Your task to perform on an android device: open app "Roku - Official Remote Control" (install if not already installed) Image 0: 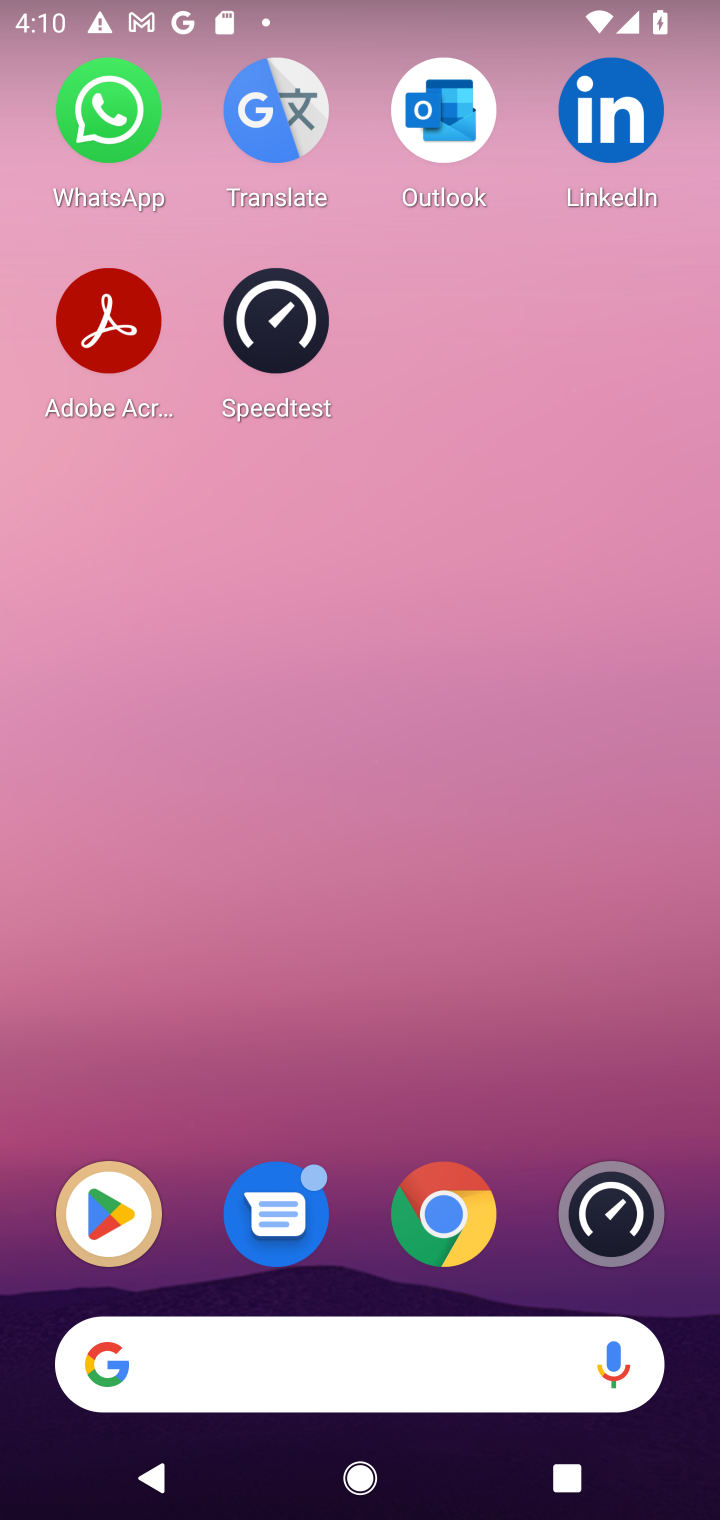
Step 0: press home button
Your task to perform on an android device: open app "Roku - Official Remote Control" (install if not already installed) Image 1: 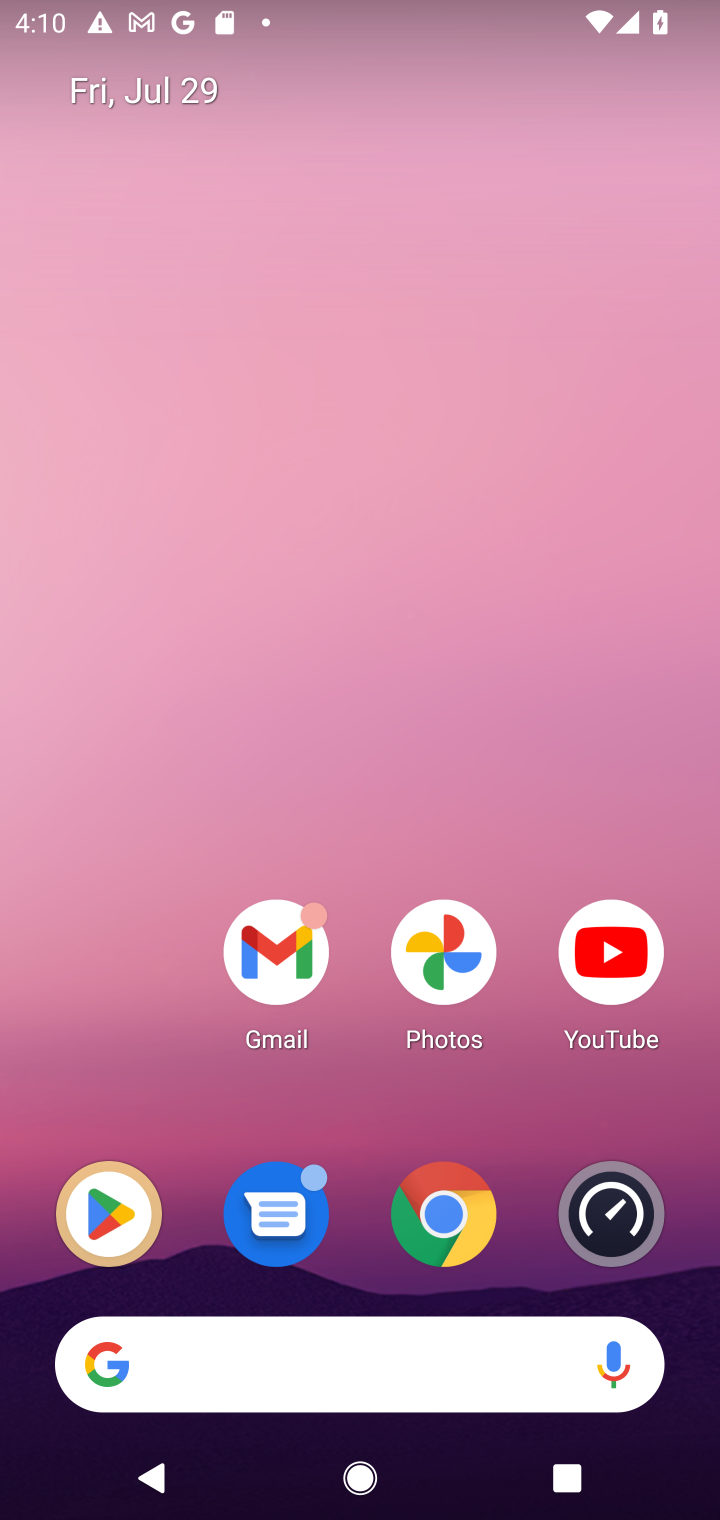
Step 1: click (114, 1234)
Your task to perform on an android device: open app "Roku - Official Remote Control" (install if not already installed) Image 2: 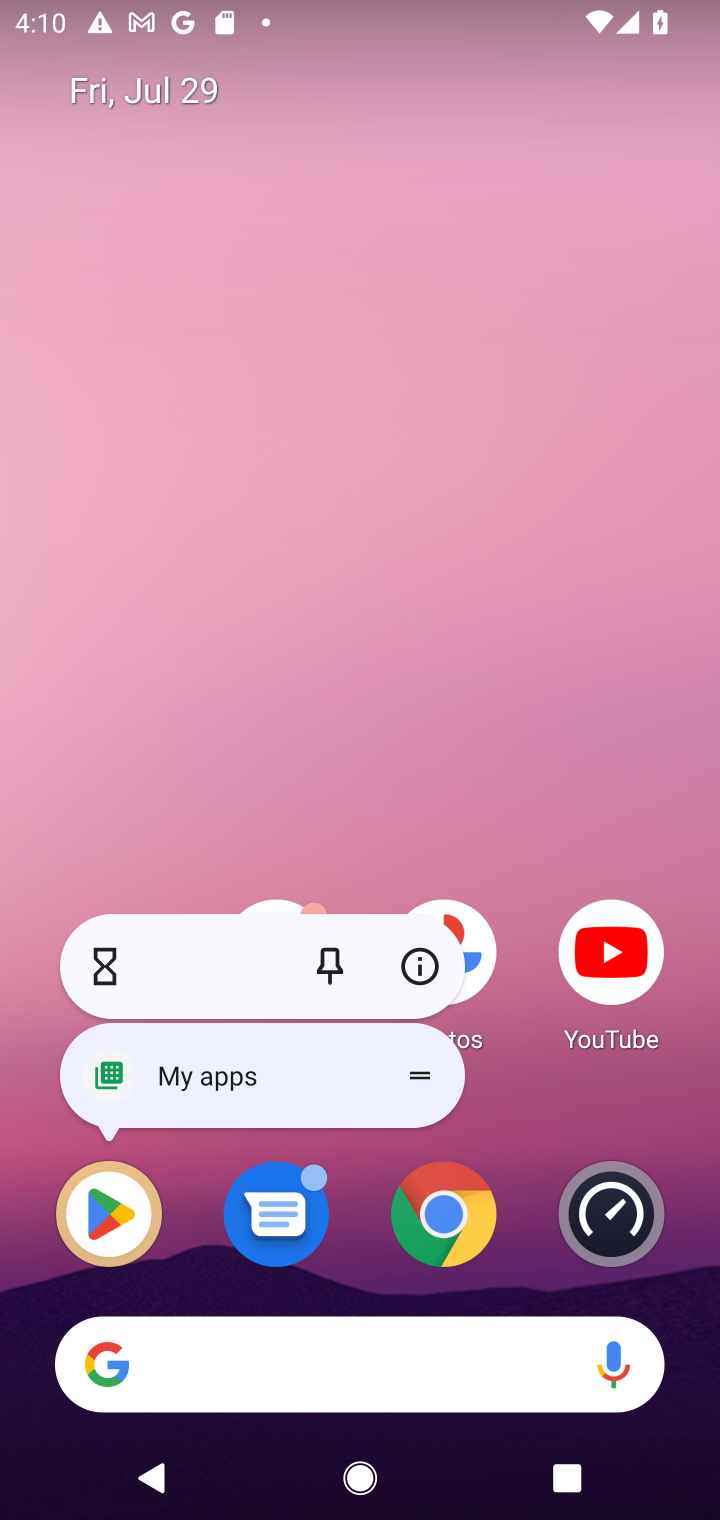
Step 2: click (101, 1236)
Your task to perform on an android device: open app "Roku - Official Remote Control" (install if not already installed) Image 3: 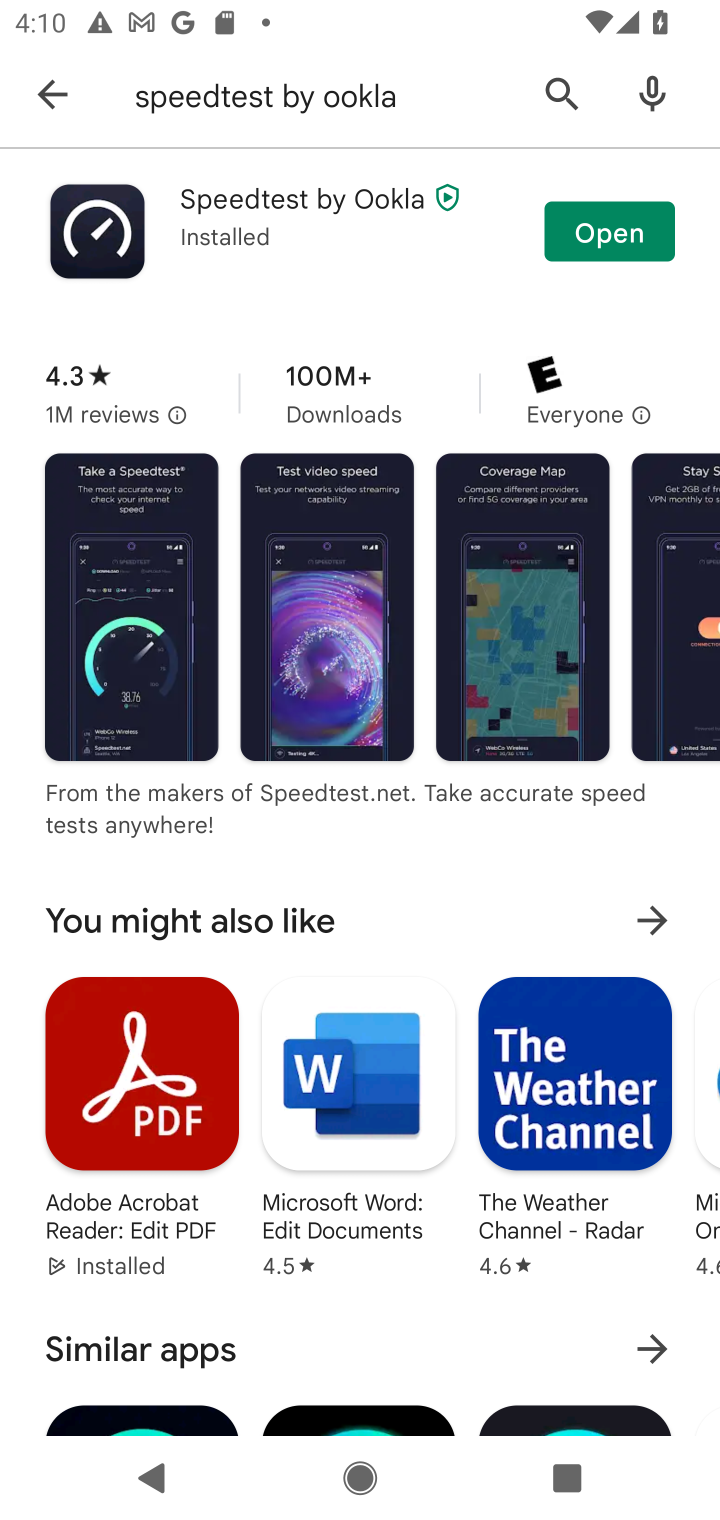
Step 3: click (413, 93)
Your task to perform on an android device: open app "Roku - Official Remote Control" (install if not already installed) Image 4: 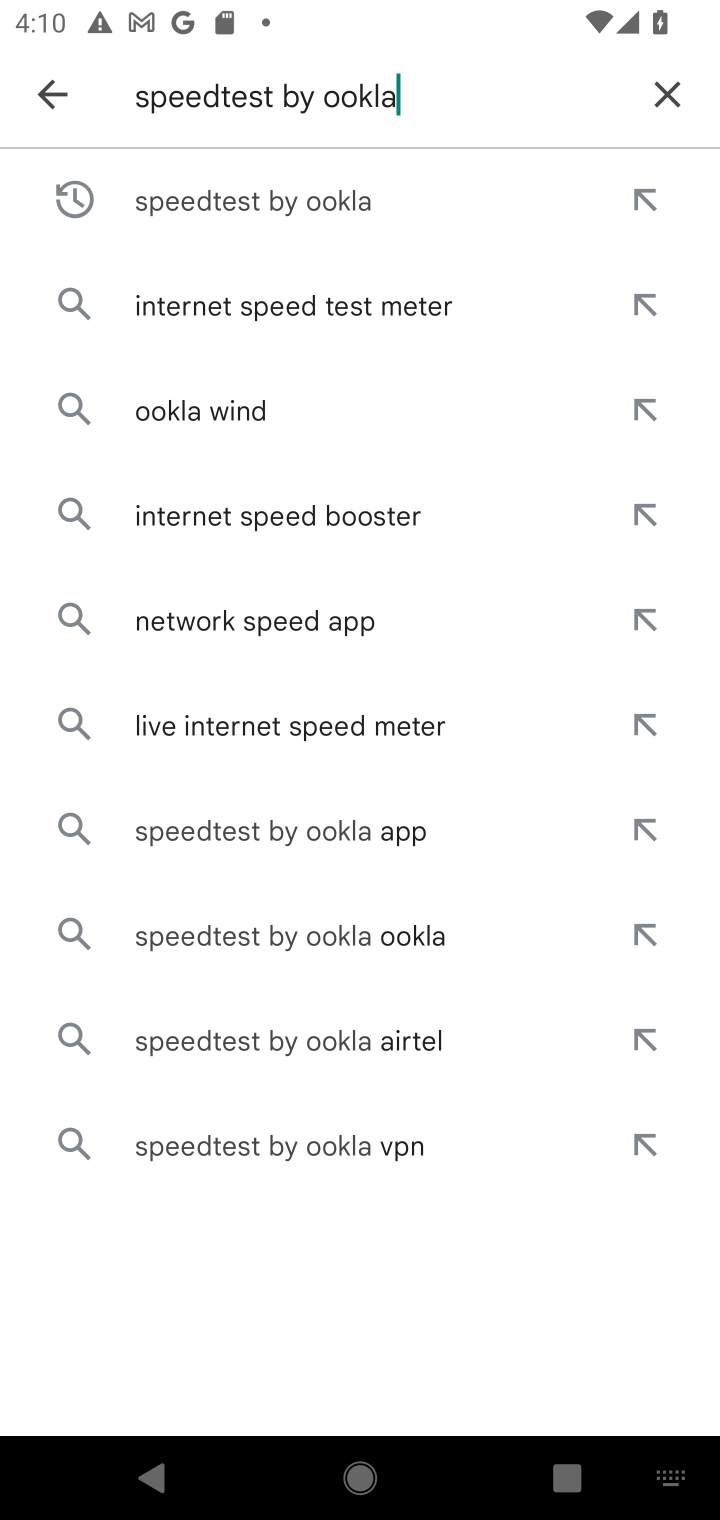
Step 4: click (677, 80)
Your task to perform on an android device: open app "Roku - Official Remote Control" (install if not already installed) Image 5: 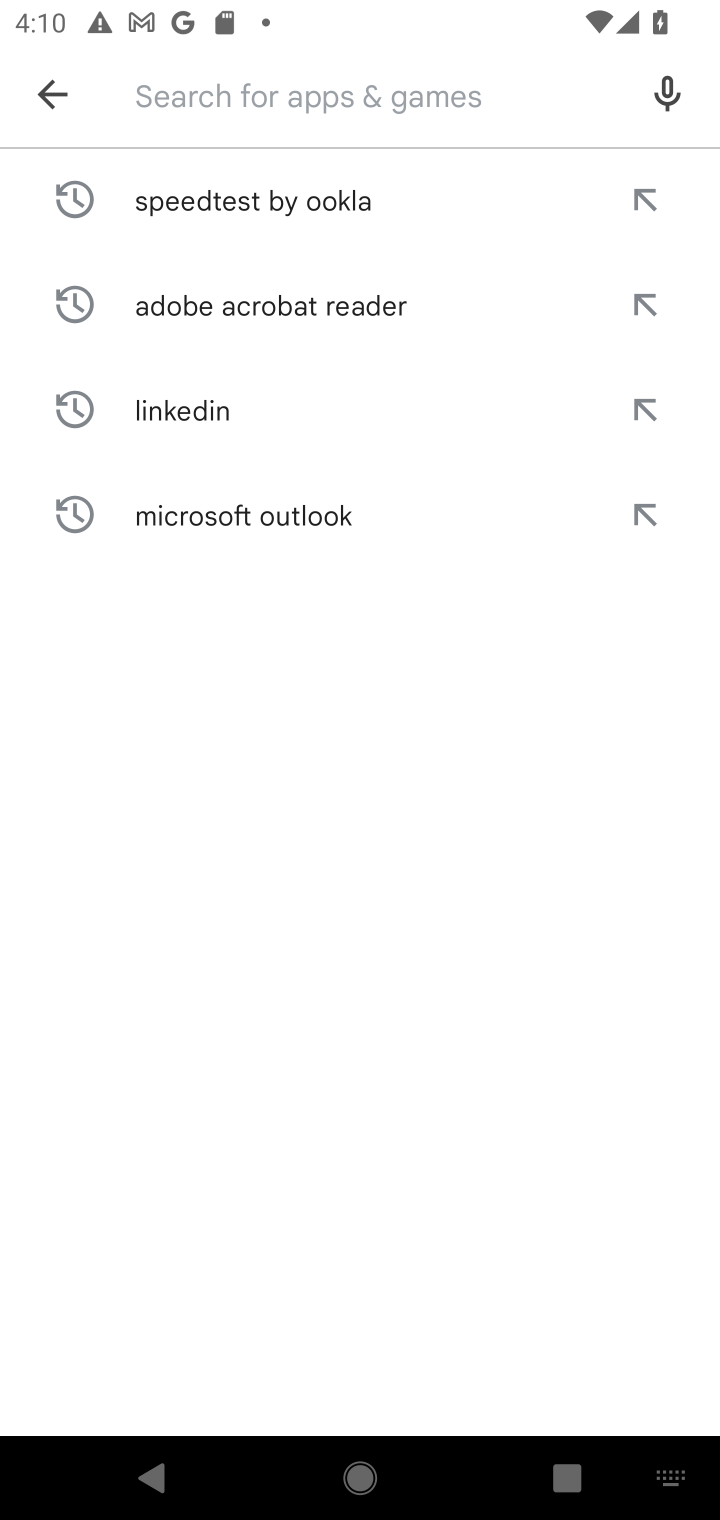
Step 5: type "Roku"
Your task to perform on an android device: open app "Roku - Official Remote Control" (install if not already installed) Image 6: 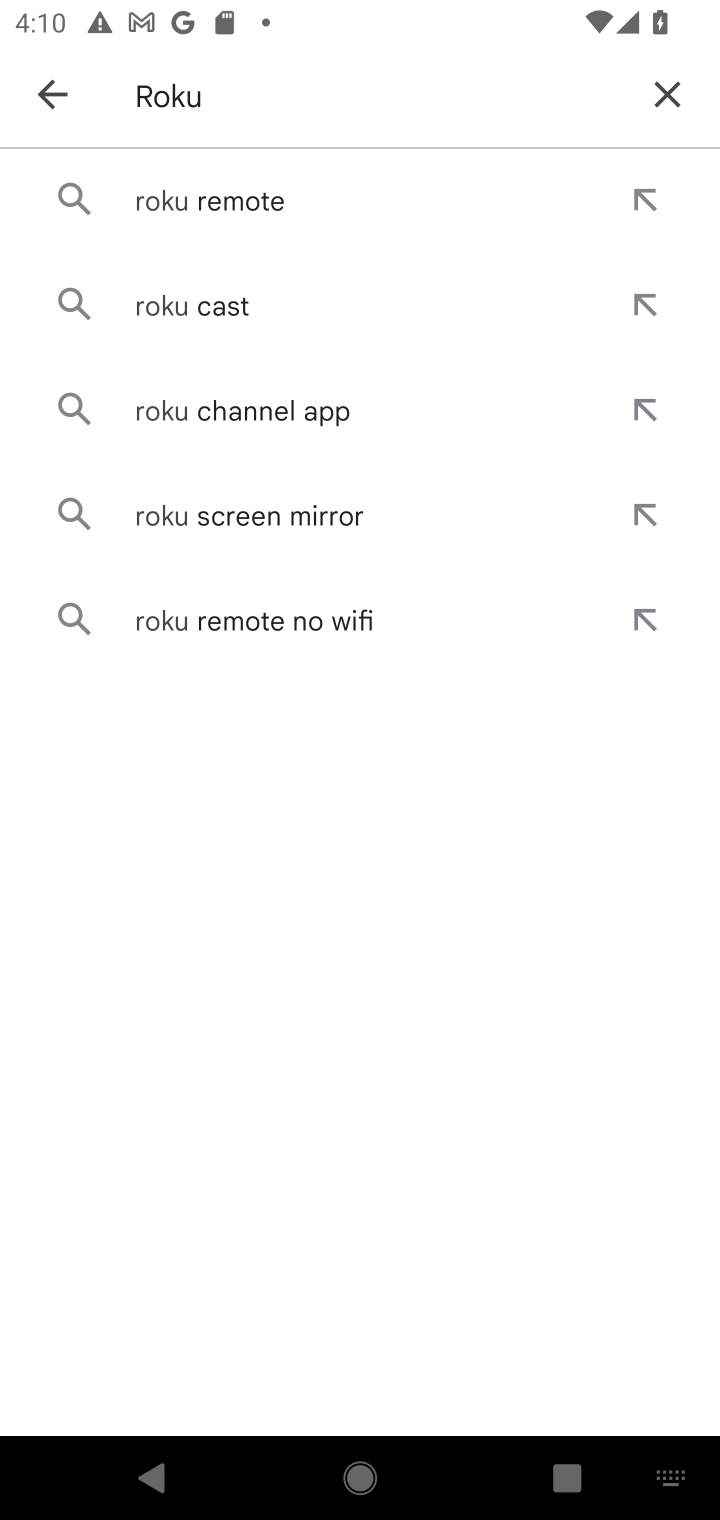
Step 6: click (230, 201)
Your task to perform on an android device: open app "Roku - Official Remote Control" (install if not already installed) Image 7: 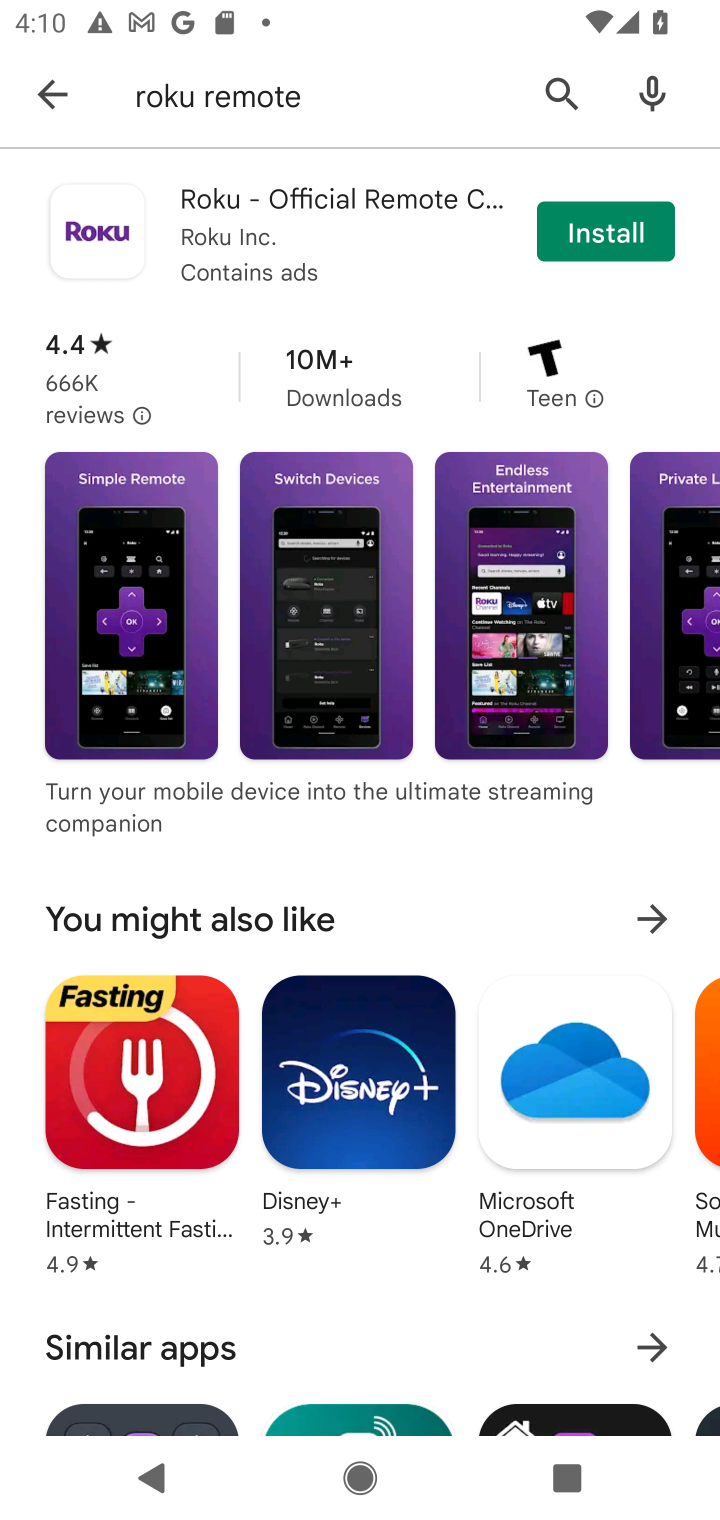
Step 7: click (625, 224)
Your task to perform on an android device: open app "Roku - Official Remote Control" (install if not already installed) Image 8: 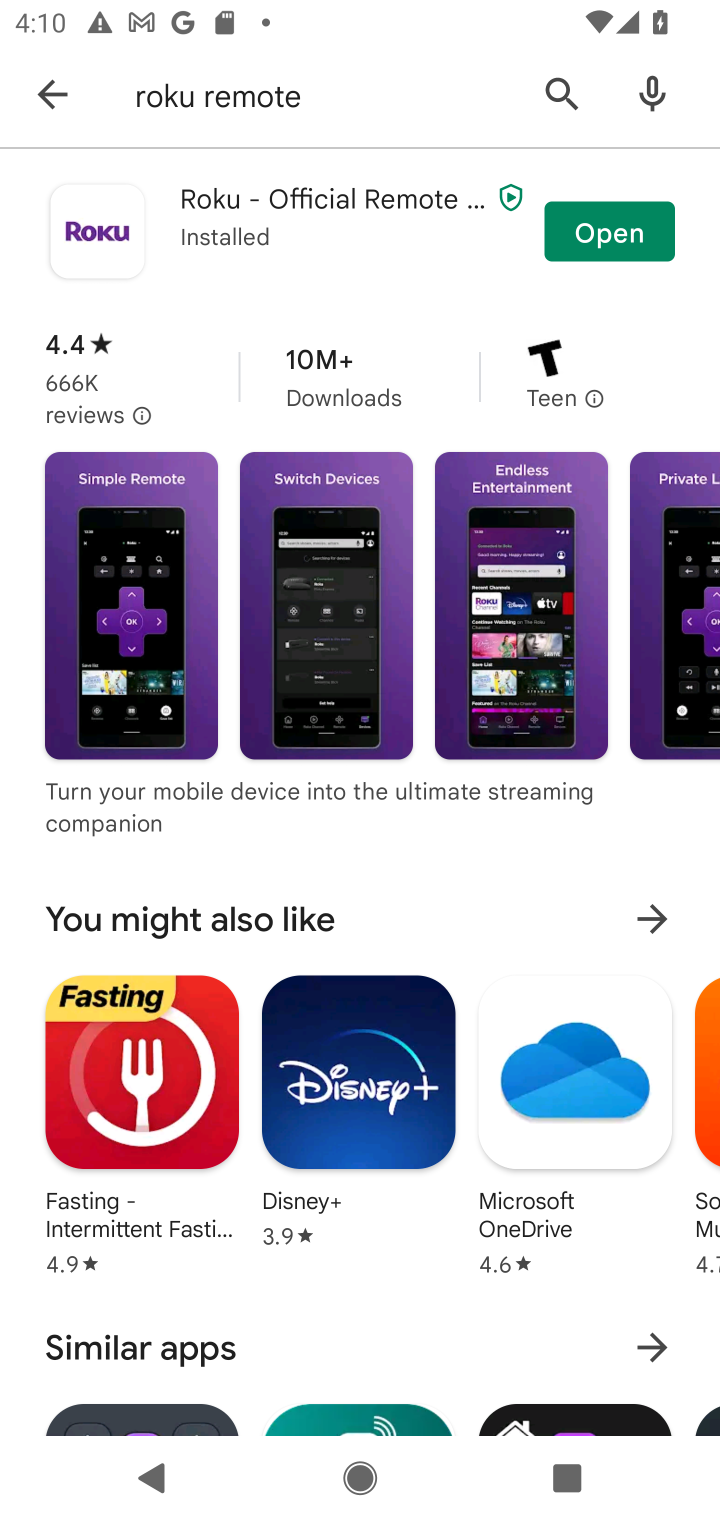
Step 8: click (670, 216)
Your task to perform on an android device: open app "Roku - Official Remote Control" (install if not already installed) Image 9: 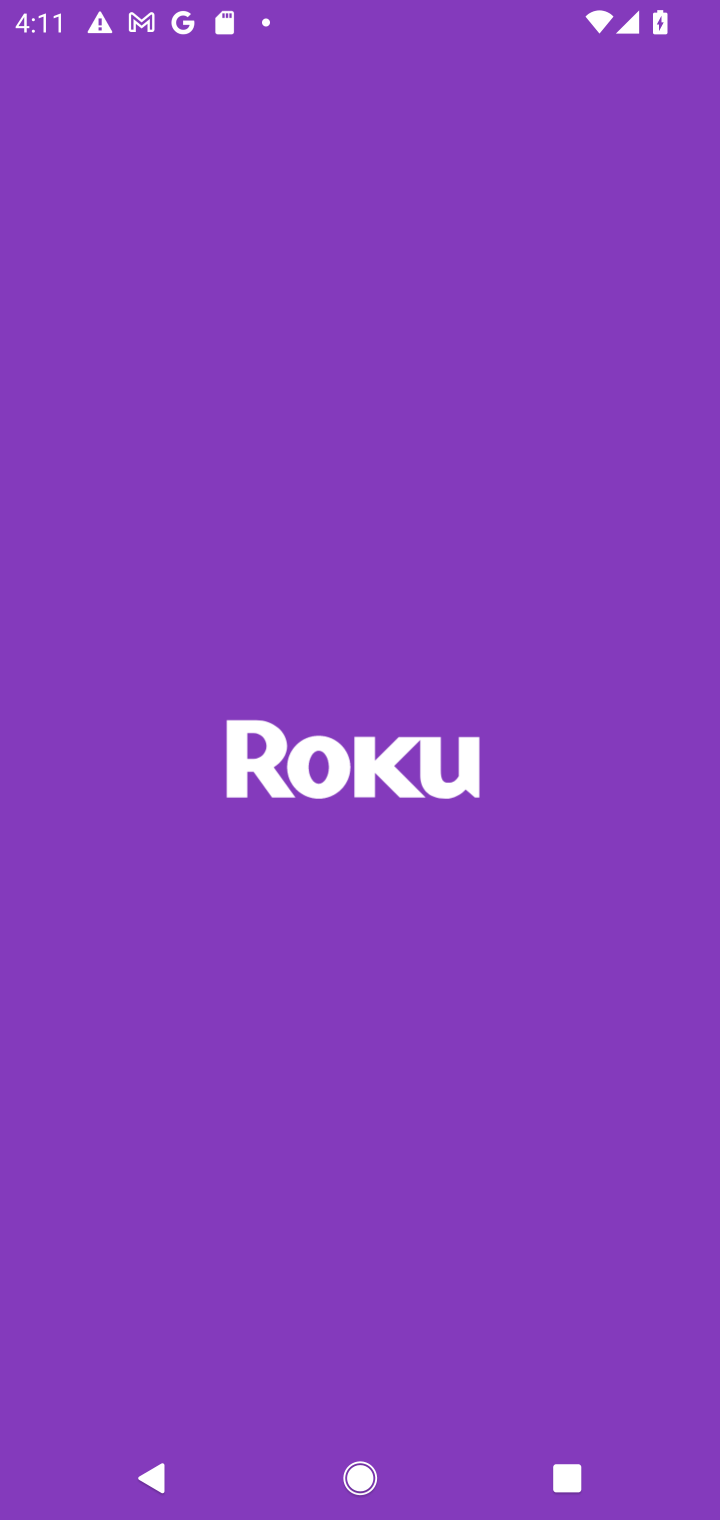
Step 9: task complete